Your task to perform on an android device: What is the recent news? Image 0: 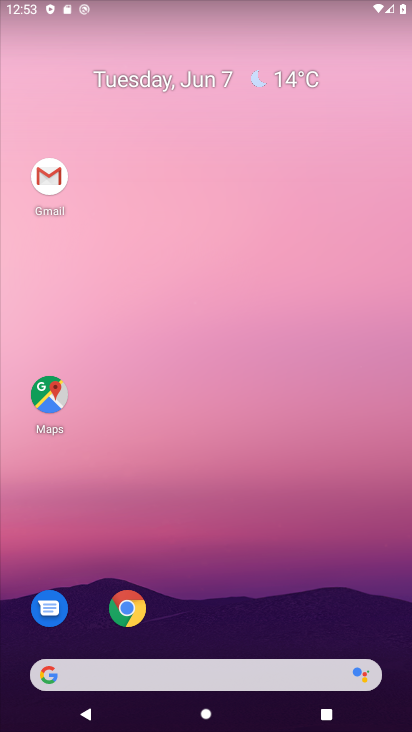
Step 0: drag from (247, 499) to (259, 169)
Your task to perform on an android device: What is the recent news? Image 1: 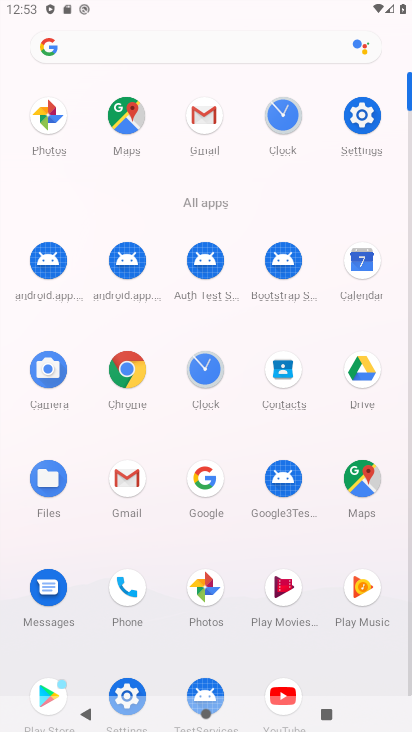
Step 1: drag from (133, 631) to (151, 253)
Your task to perform on an android device: What is the recent news? Image 2: 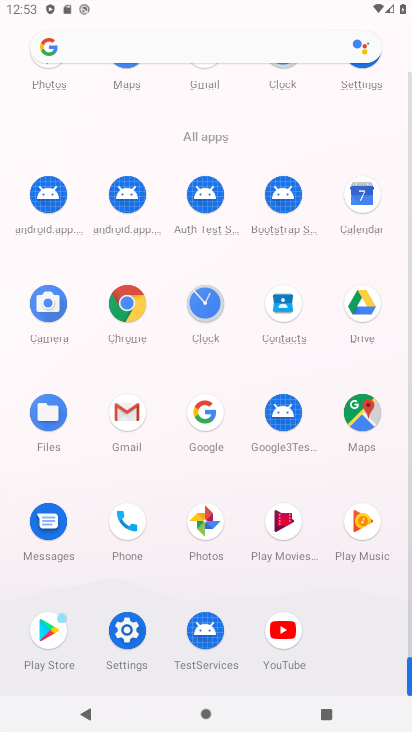
Step 2: drag from (205, 404) to (122, 312)
Your task to perform on an android device: What is the recent news? Image 3: 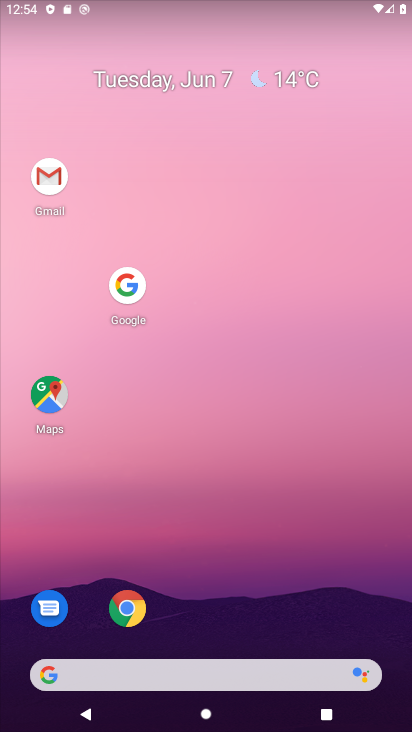
Step 3: click (138, 285)
Your task to perform on an android device: What is the recent news? Image 4: 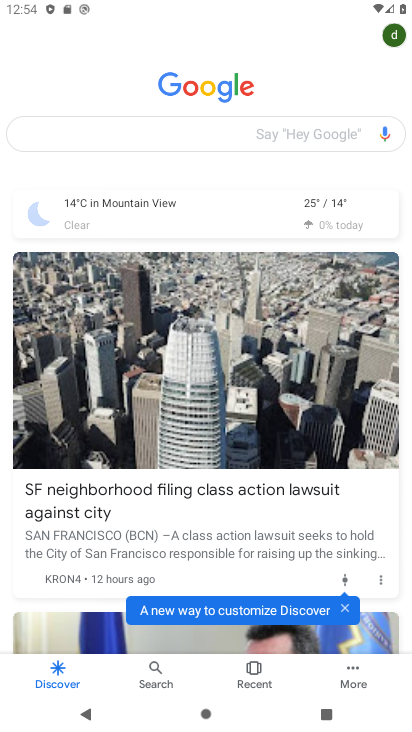
Step 4: click (124, 133)
Your task to perform on an android device: What is the recent news? Image 5: 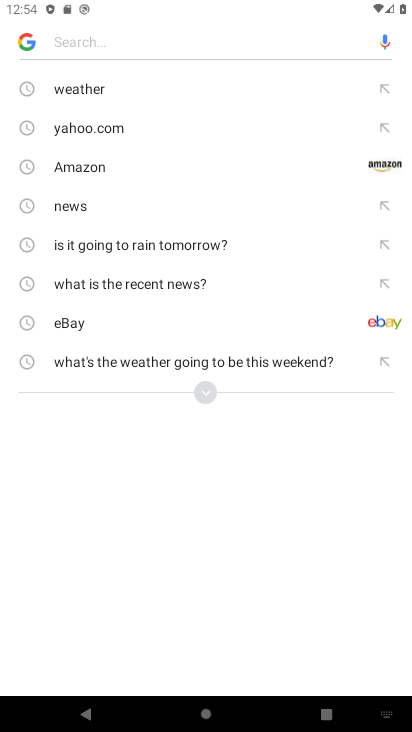
Step 5: type "recent news"
Your task to perform on an android device: What is the recent news? Image 6: 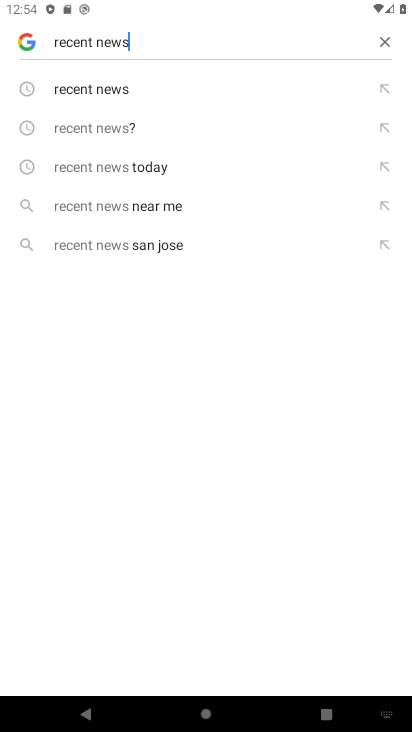
Step 6: task complete